Your task to perform on an android device: delete a single message in the gmail app Image 0: 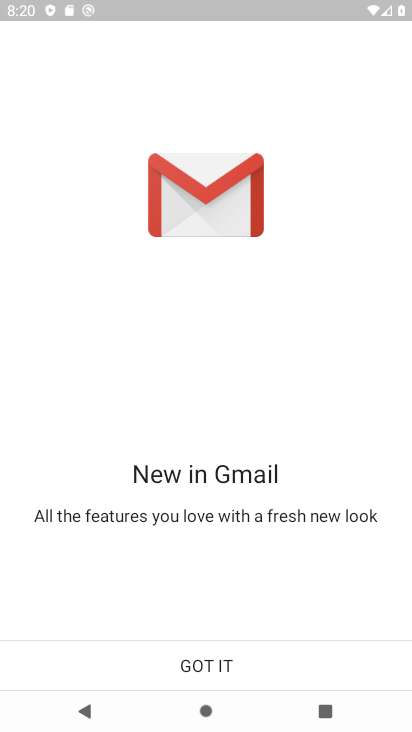
Step 0: click (174, 661)
Your task to perform on an android device: delete a single message in the gmail app Image 1: 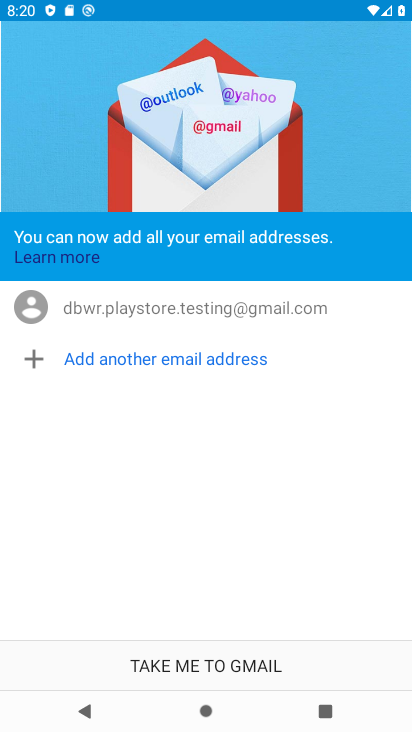
Step 1: click (160, 656)
Your task to perform on an android device: delete a single message in the gmail app Image 2: 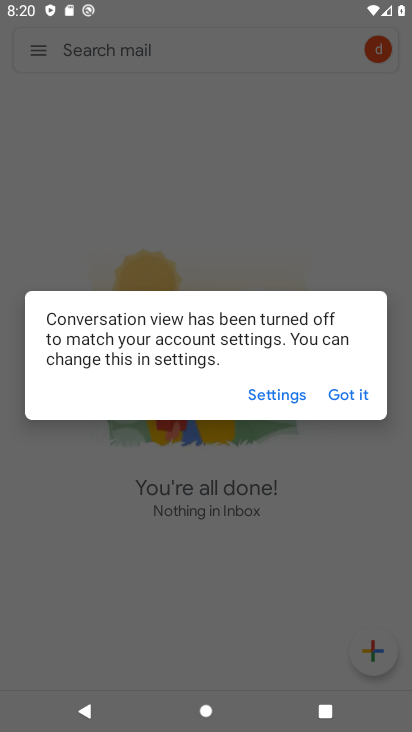
Step 2: click (357, 387)
Your task to perform on an android device: delete a single message in the gmail app Image 3: 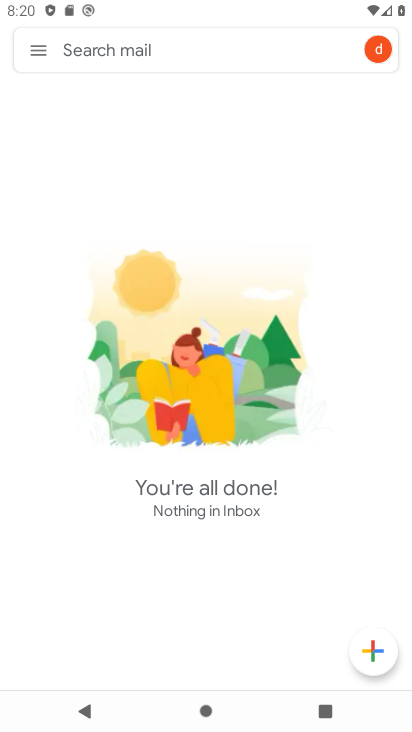
Step 3: click (36, 48)
Your task to perform on an android device: delete a single message in the gmail app Image 4: 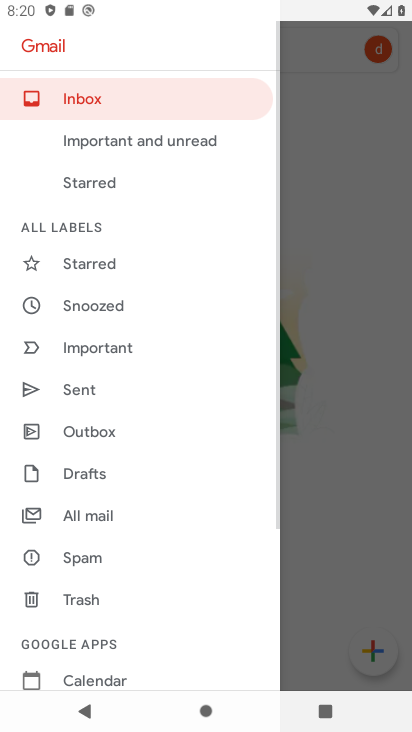
Step 4: click (94, 520)
Your task to perform on an android device: delete a single message in the gmail app Image 5: 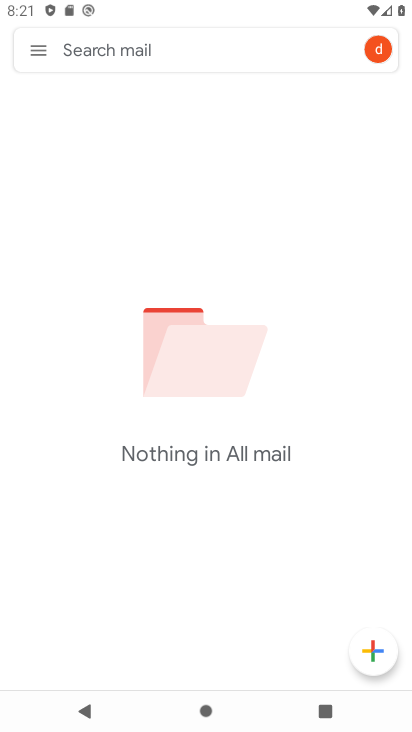
Step 5: task complete